Your task to perform on an android device: What's a good restaurant in Dallas? Image 0: 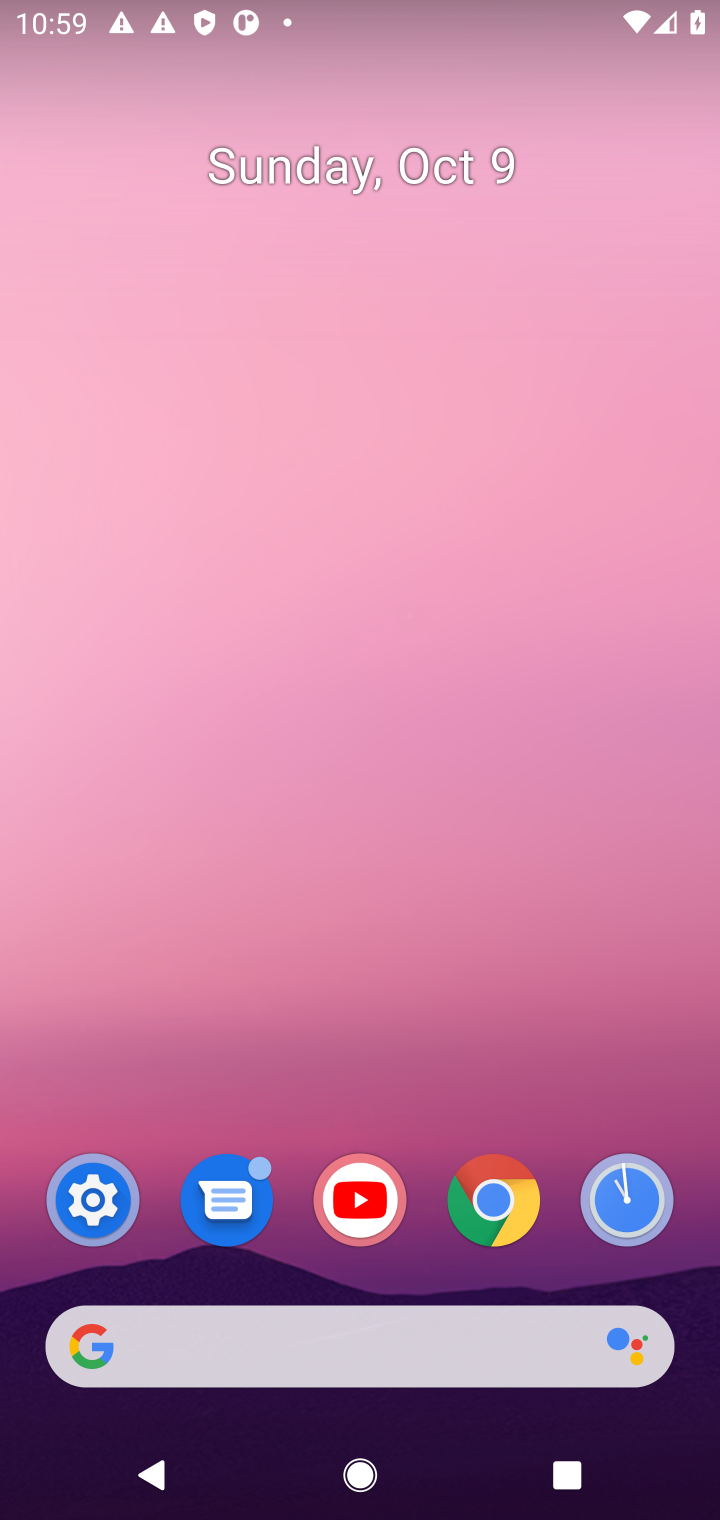
Step 0: click (515, 1224)
Your task to perform on an android device: What's a good restaurant in Dallas? Image 1: 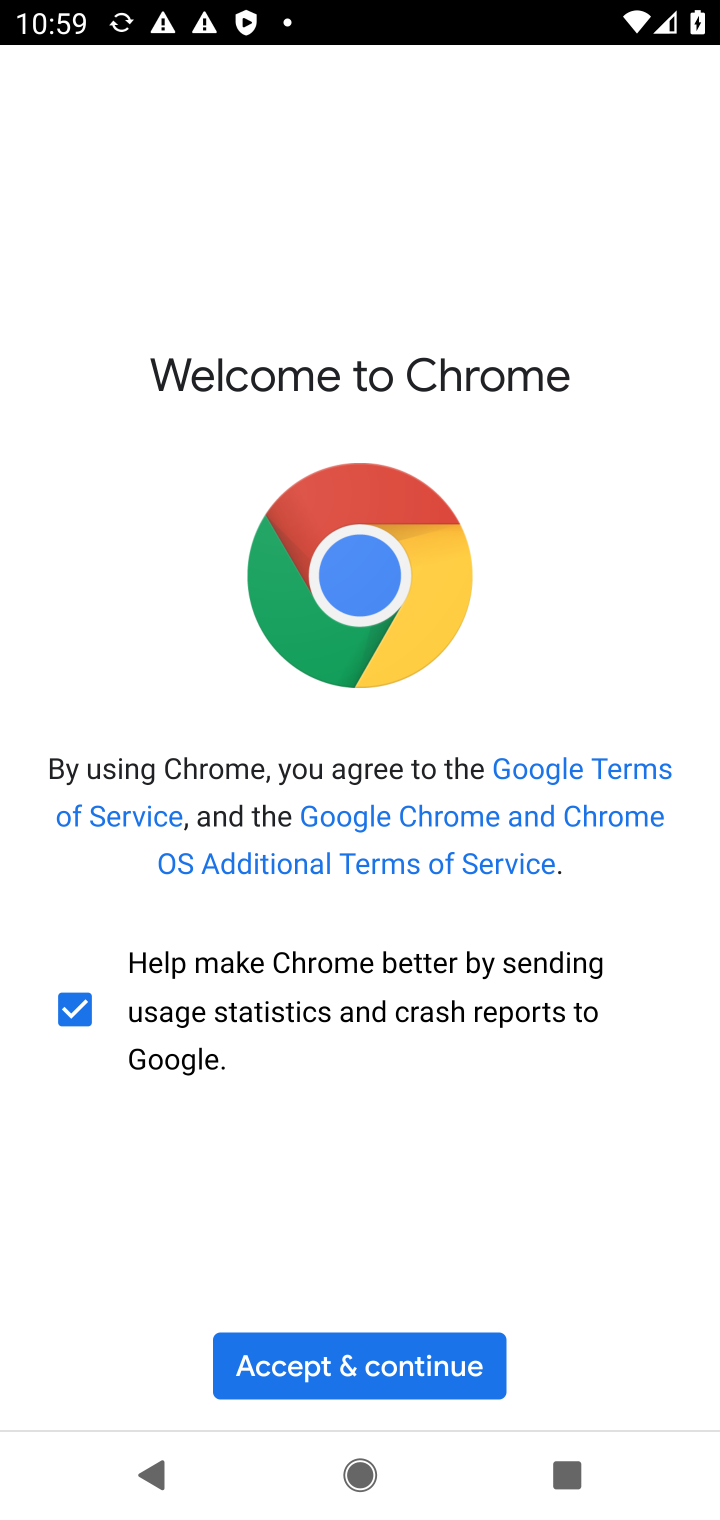
Step 1: click (378, 1351)
Your task to perform on an android device: What's a good restaurant in Dallas? Image 2: 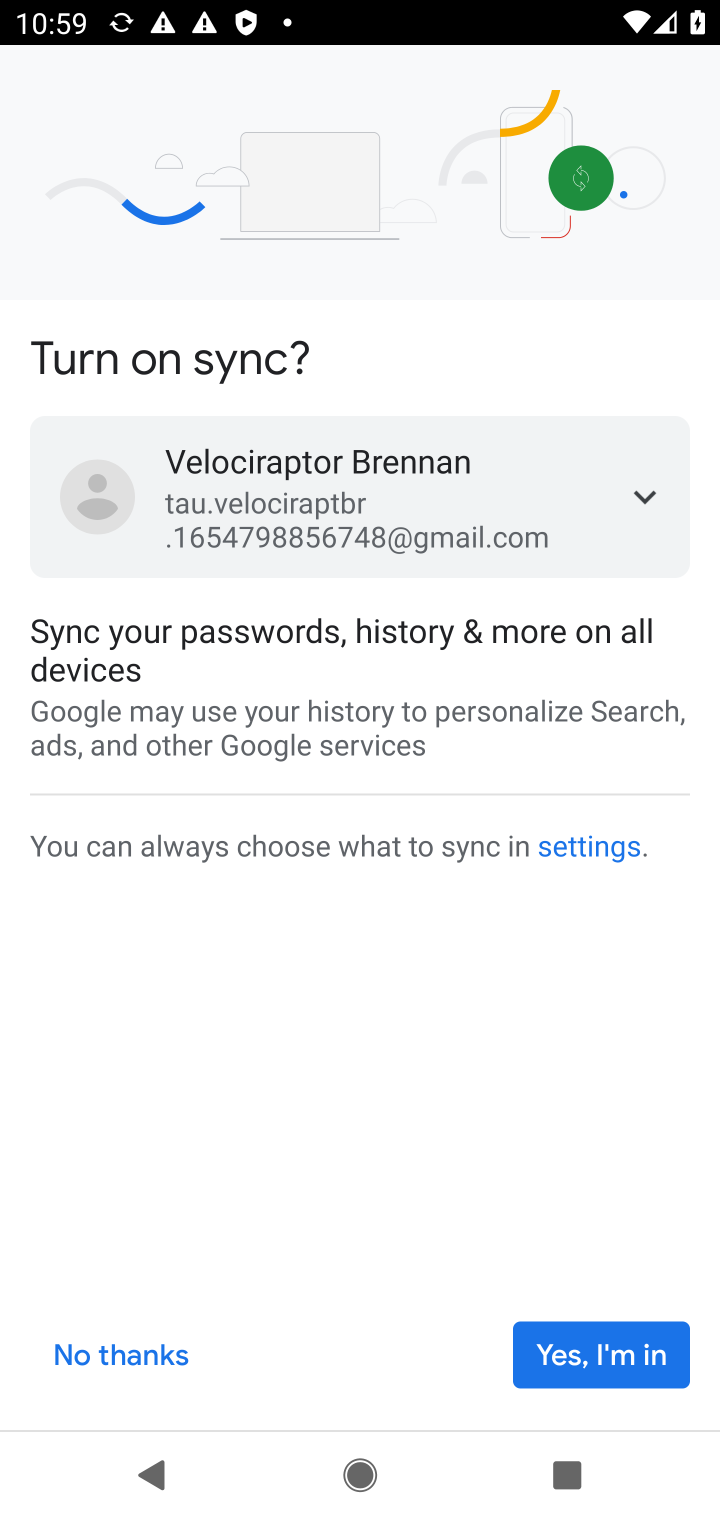
Step 2: click (606, 1360)
Your task to perform on an android device: What's a good restaurant in Dallas? Image 3: 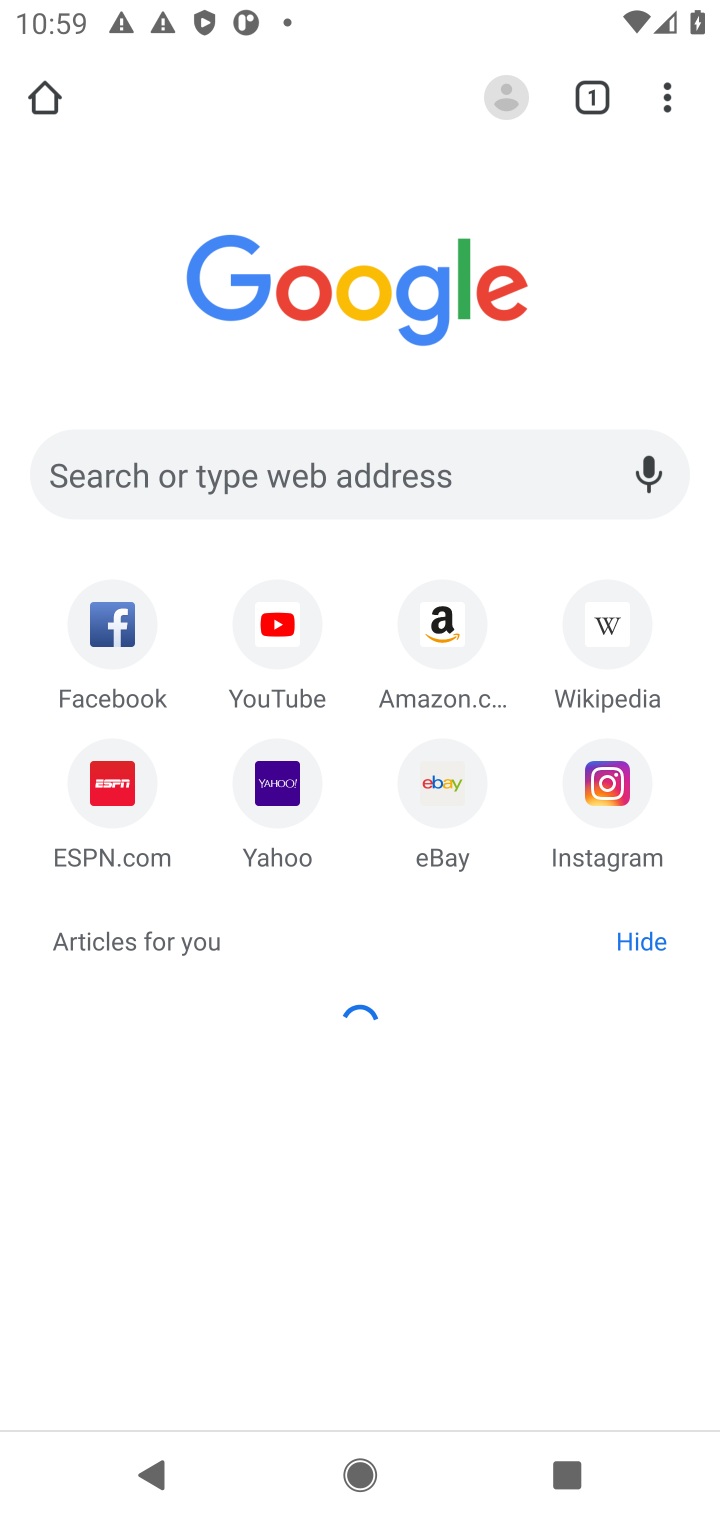
Step 3: click (304, 482)
Your task to perform on an android device: What's a good restaurant in Dallas? Image 4: 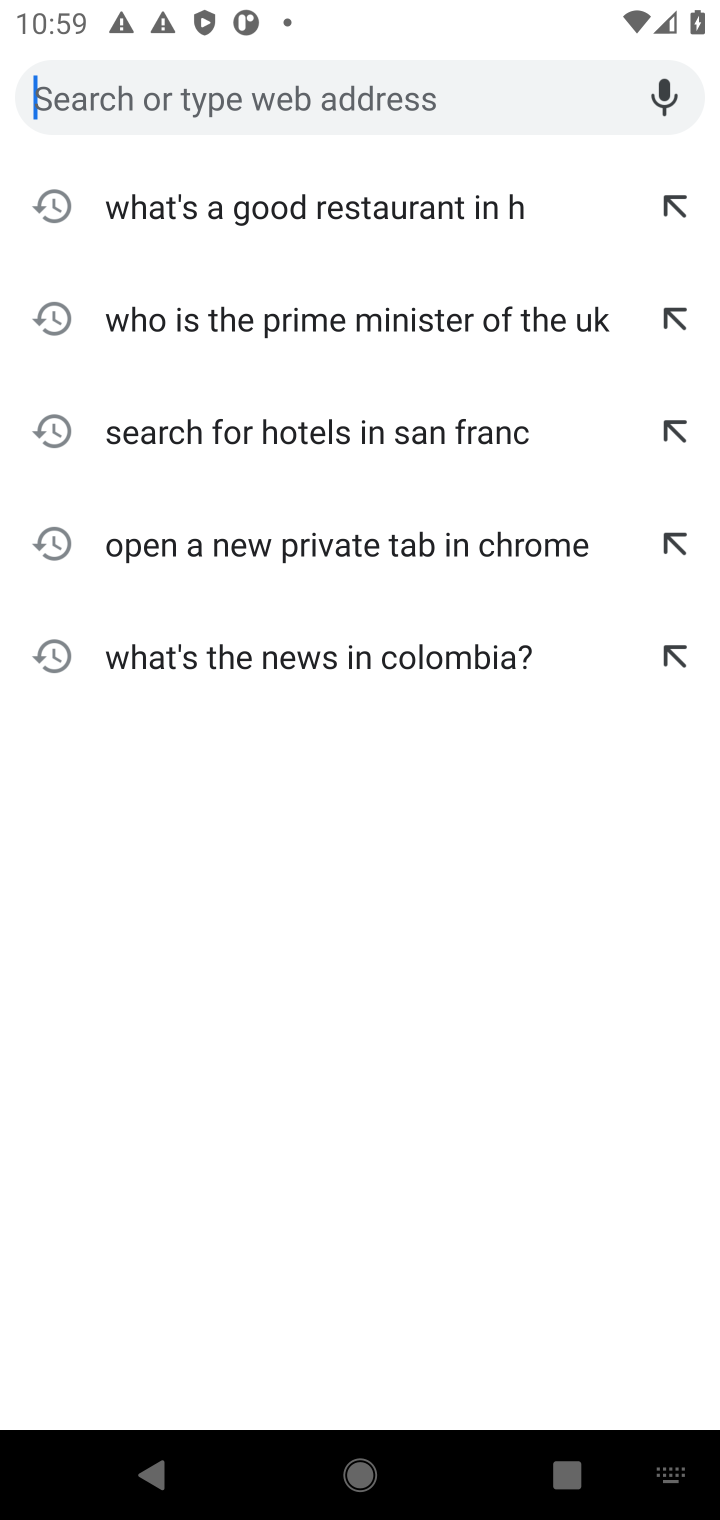
Step 4: type "What's a good restaurant in Dallas?"
Your task to perform on an android device: What's a good restaurant in Dallas? Image 5: 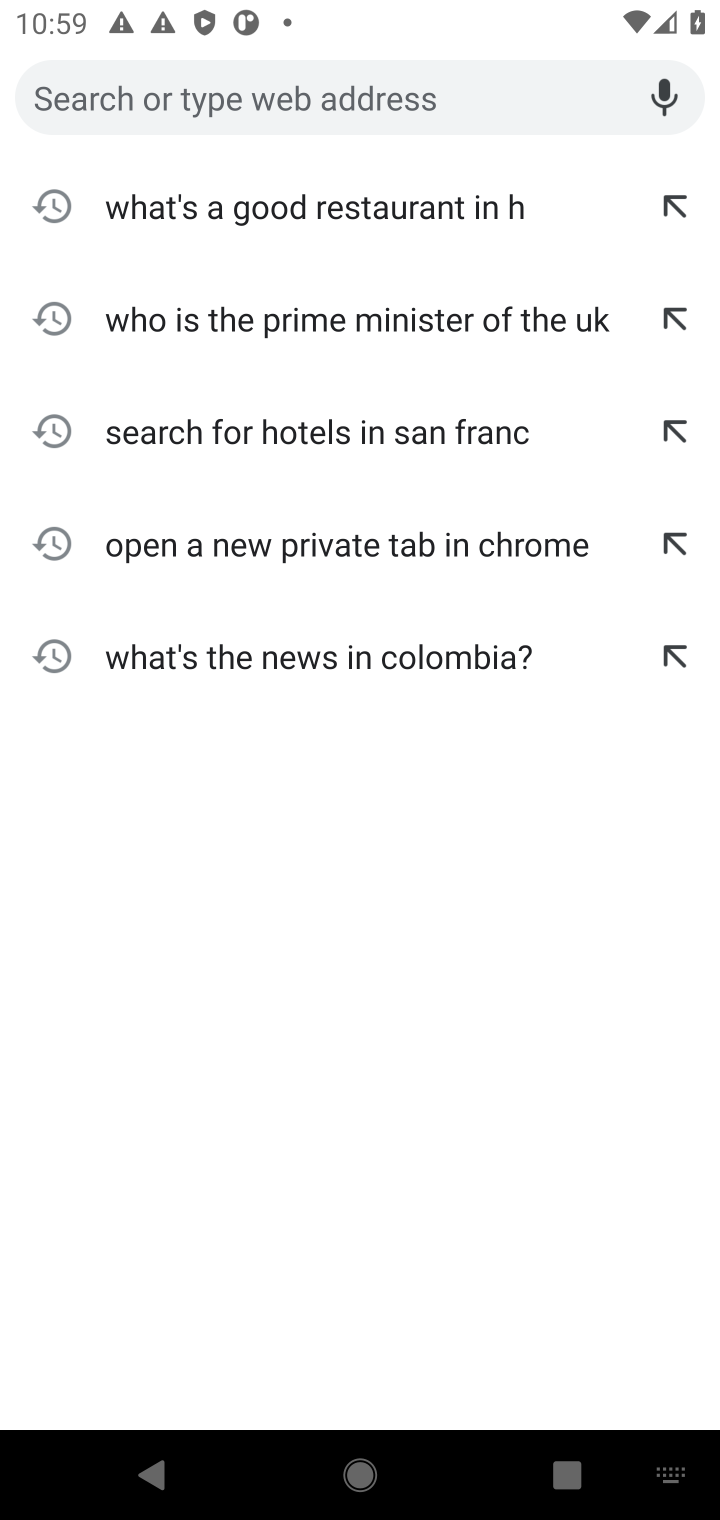
Step 5: click (274, 99)
Your task to perform on an android device: What's a good restaurant in Dallas? Image 6: 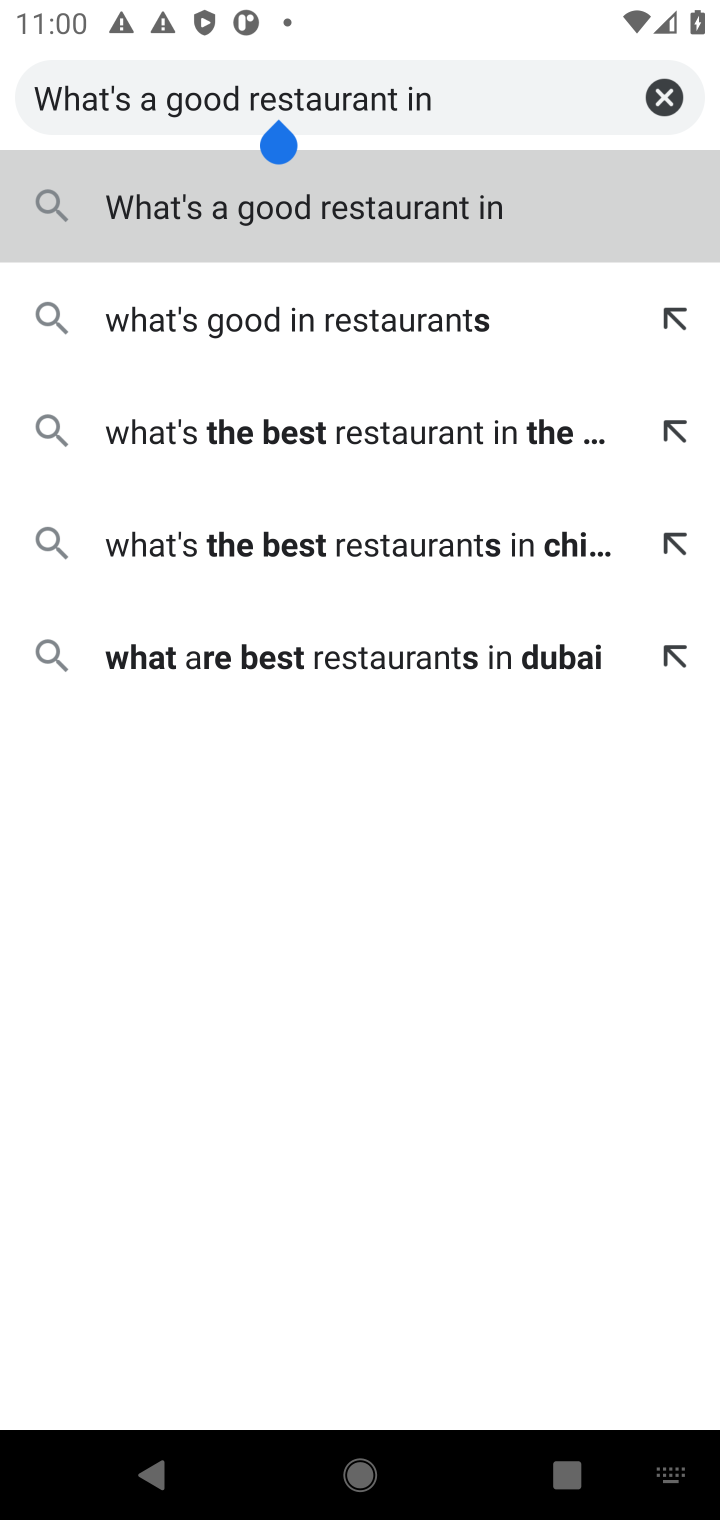
Step 6: click (498, 97)
Your task to perform on an android device: What's a good restaurant in Dallas? Image 7: 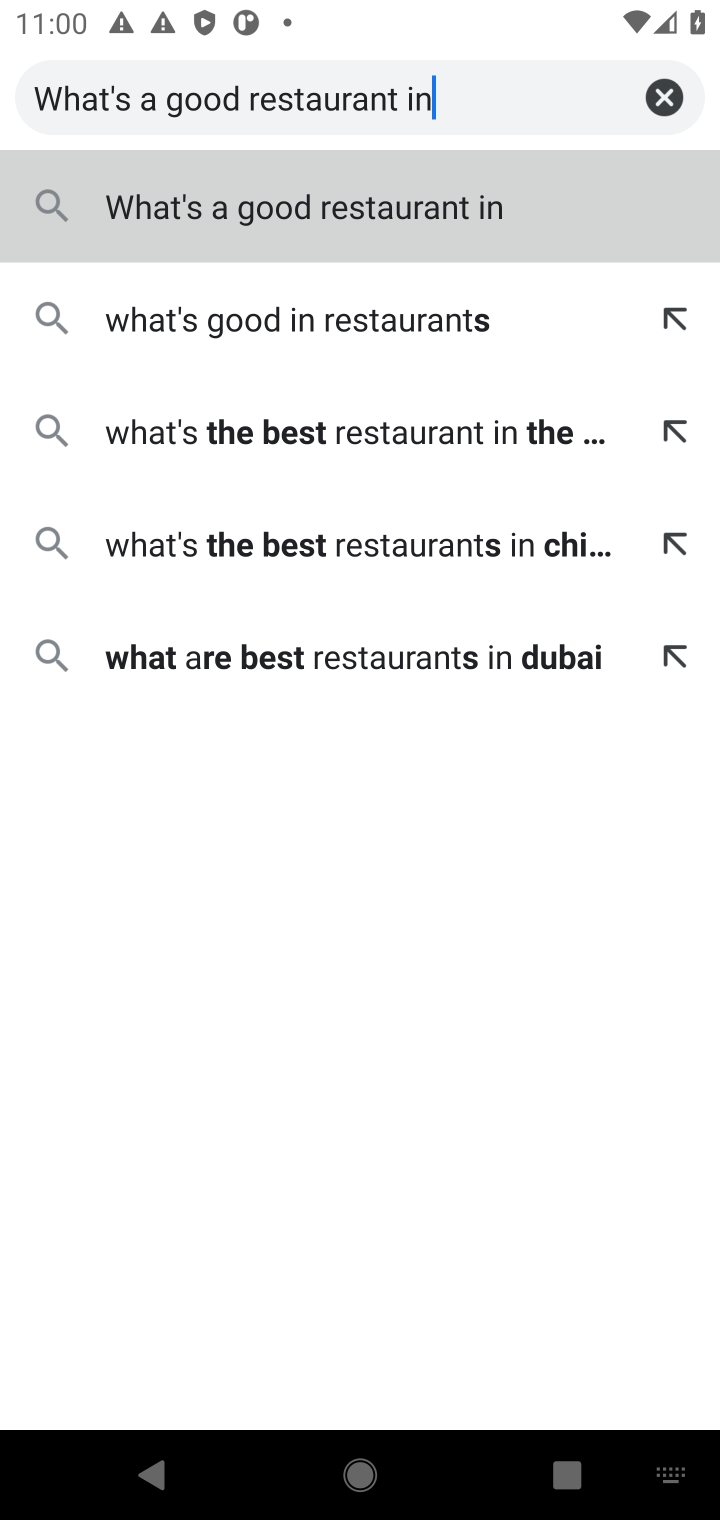
Step 7: type " dallas ?"
Your task to perform on an android device: What's a good restaurant in Dallas? Image 8: 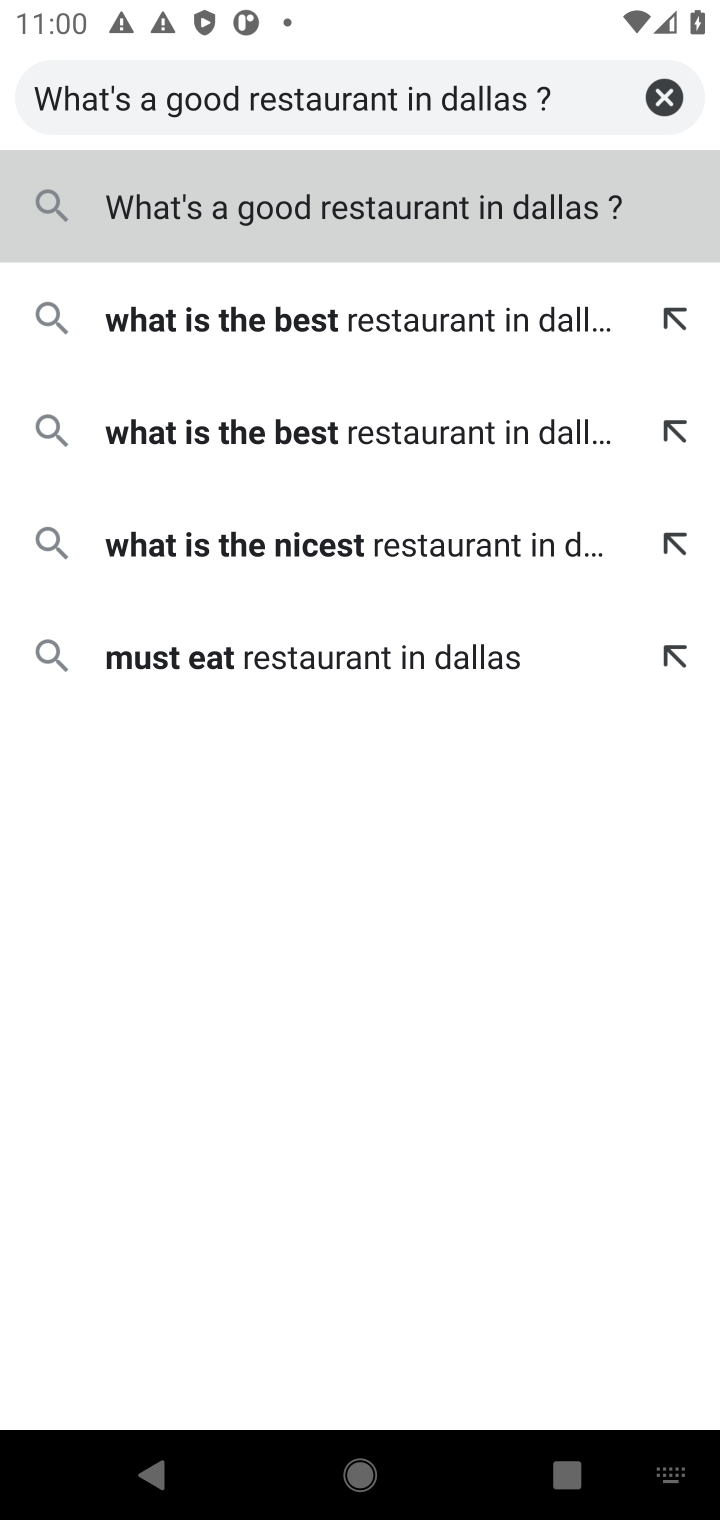
Step 8: click (306, 322)
Your task to perform on an android device: What's a good restaurant in Dallas? Image 9: 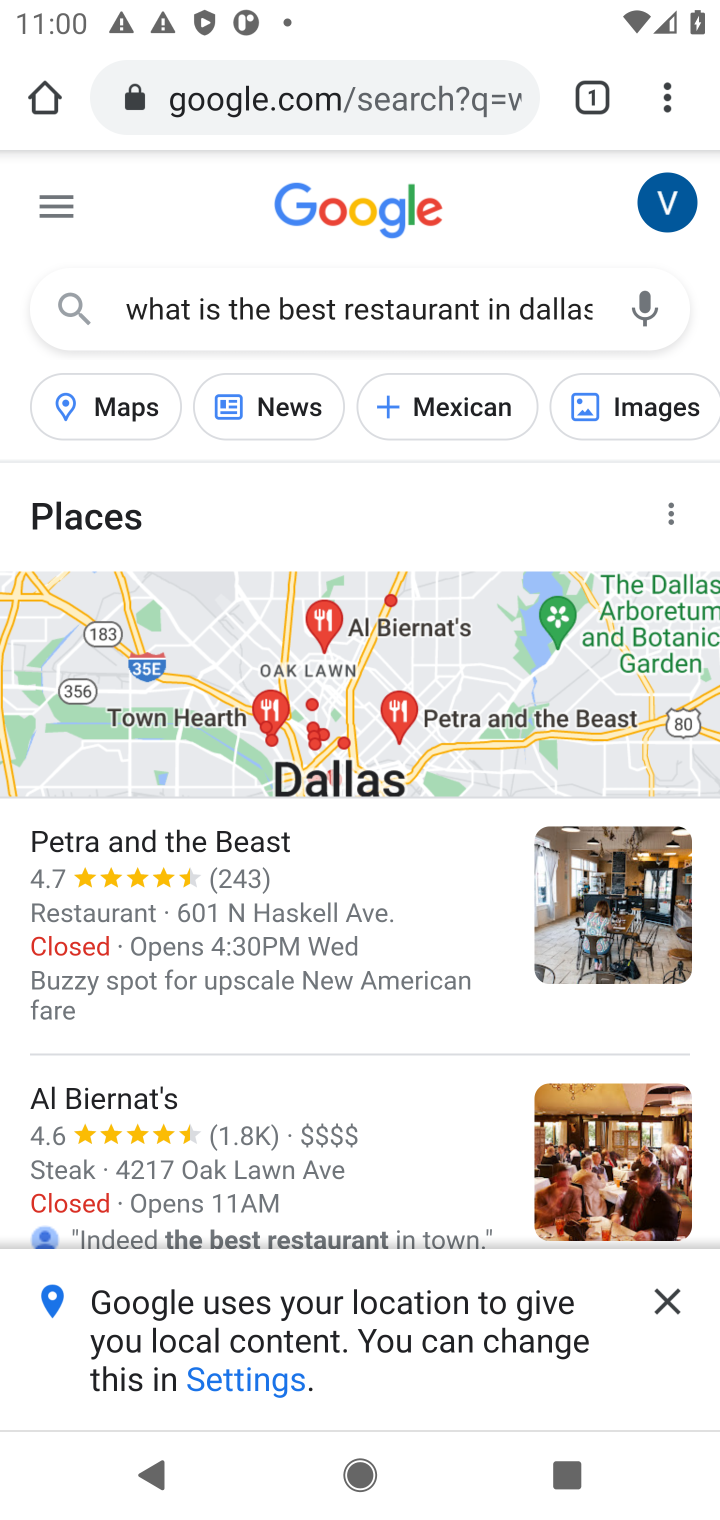
Step 9: task complete